Your task to perform on an android device: Check the news Image 0: 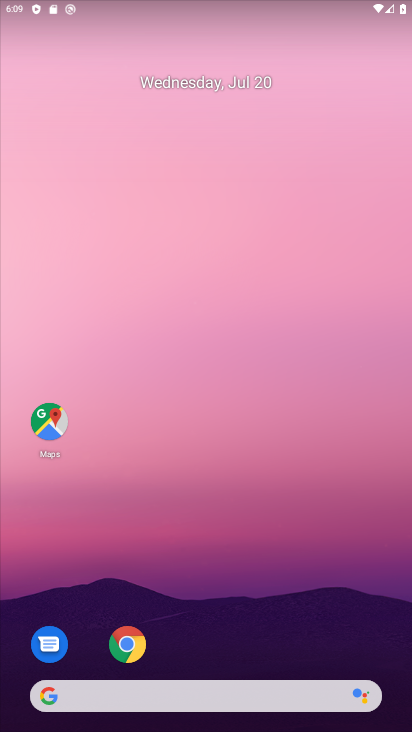
Step 0: press home button
Your task to perform on an android device: Check the news Image 1: 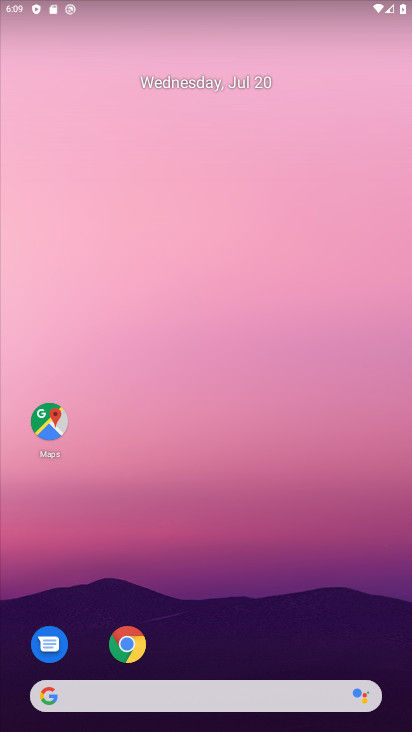
Step 1: click (42, 693)
Your task to perform on an android device: Check the news Image 2: 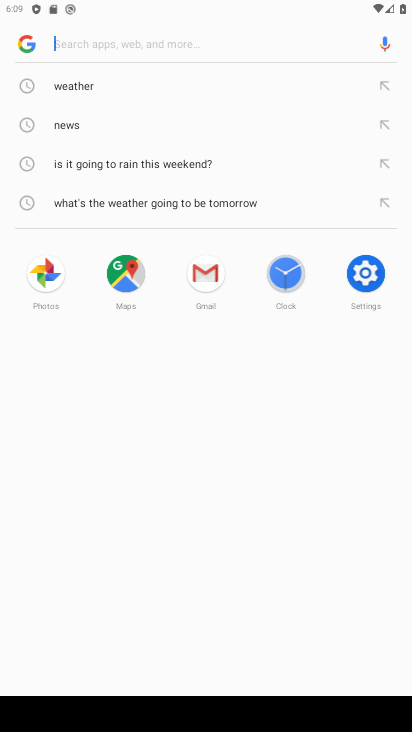
Step 2: click (62, 126)
Your task to perform on an android device: Check the news Image 3: 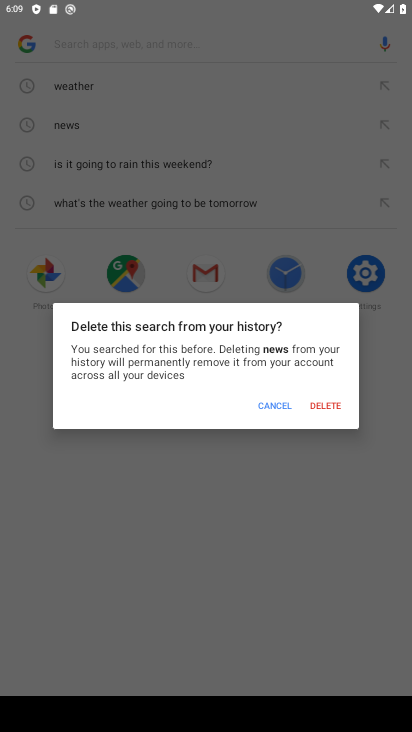
Step 3: click (274, 405)
Your task to perform on an android device: Check the news Image 4: 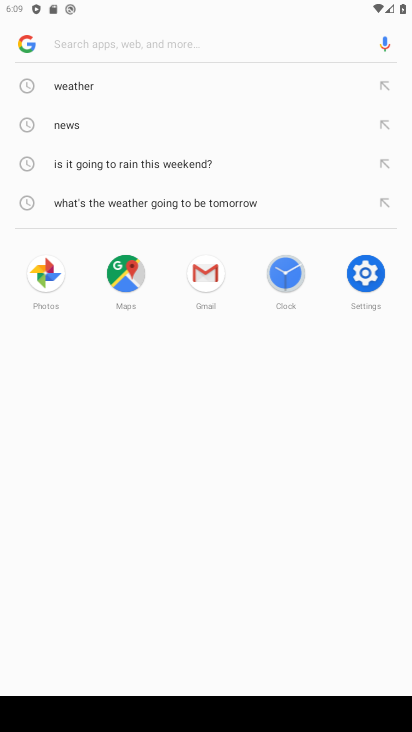
Step 4: click (71, 123)
Your task to perform on an android device: Check the news Image 5: 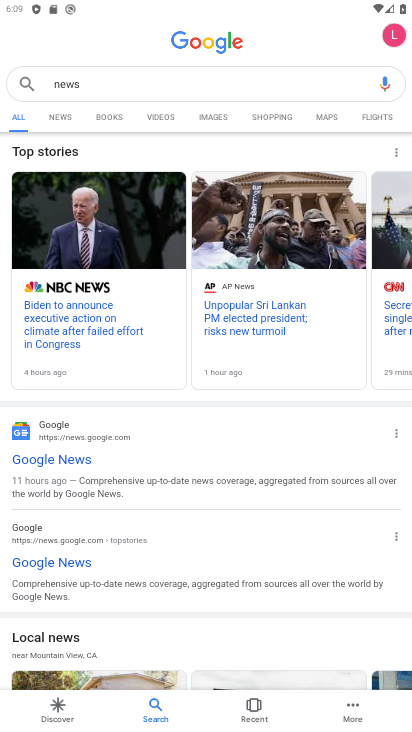
Step 5: task complete